Your task to perform on an android device: How much does a 3 bedroom apartment rent for in Atlanta? Image 0: 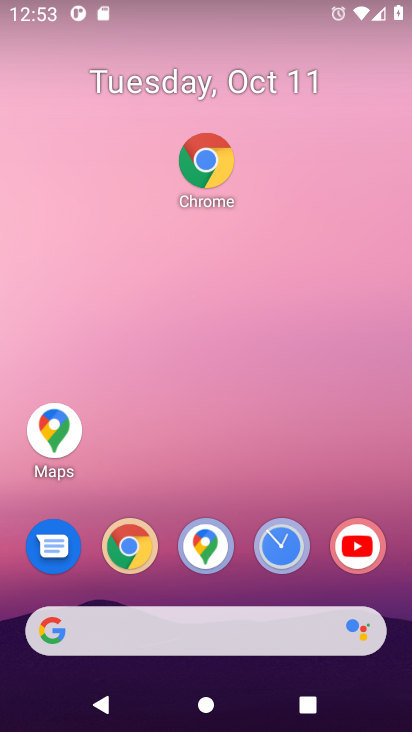
Step 0: click (129, 555)
Your task to perform on an android device: How much does a 3 bedroom apartment rent for in Atlanta? Image 1: 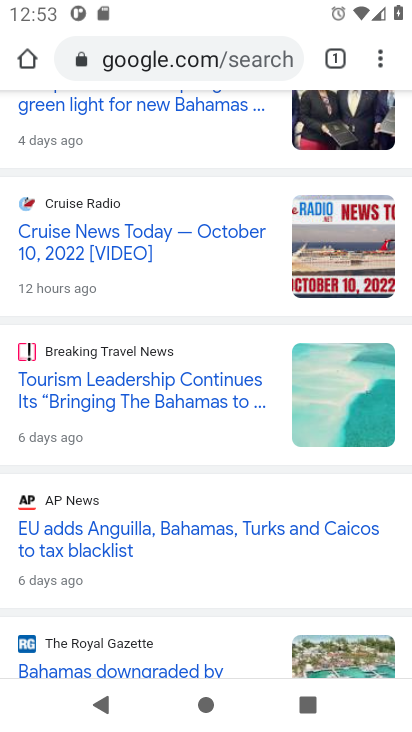
Step 1: click (191, 68)
Your task to perform on an android device: How much does a 3 bedroom apartment rent for in Atlanta? Image 2: 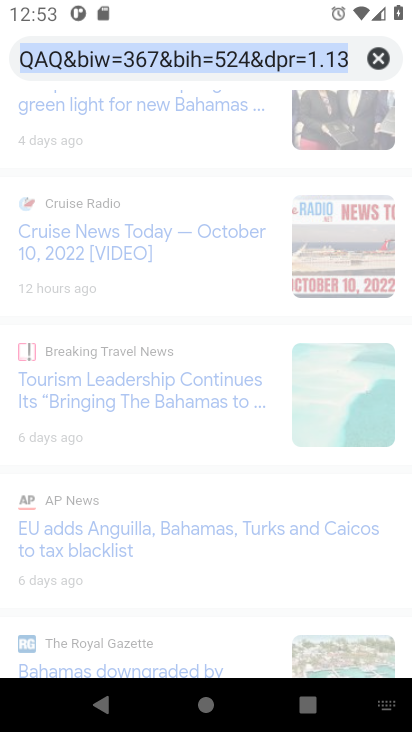
Step 2: type "3 bedroom apartment rent in Atlanta"
Your task to perform on an android device: How much does a 3 bedroom apartment rent for in Atlanta? Image 3: 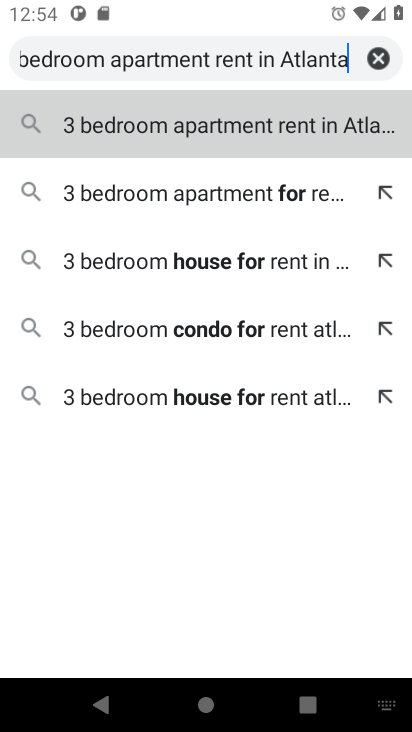
Step 3: press enter
Your task to perform on an android device: How much does a 3 bedroom apartment rent for in Atlanta? Image 4: 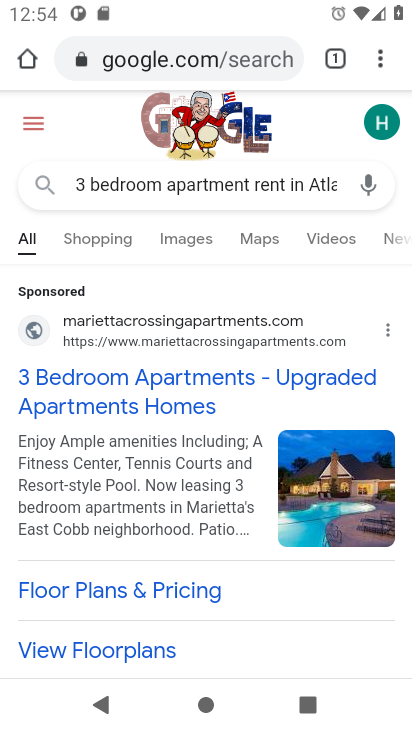
Step 4: drag from (157, 513) to (184, 185)
Your task to perform on an android device: How much does a 3 bedroom apartment rent for in Atlanta? Image 5: 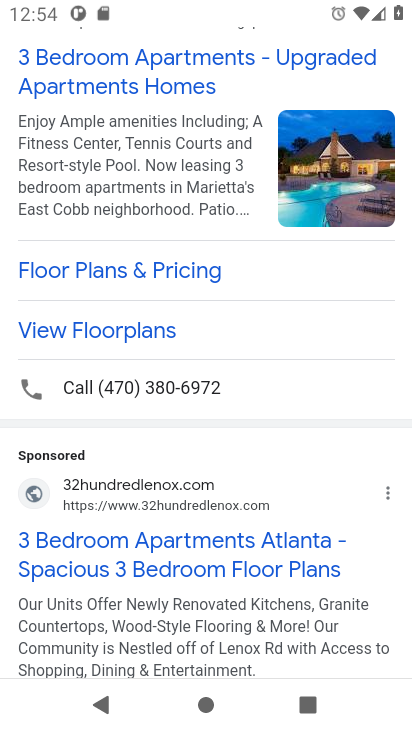
Step 5: drag from (238, 294) to (262, 151)
Your task to perform on an android device: How much does a 3 bedroom apartment rent for in Atlanta? Image 6: 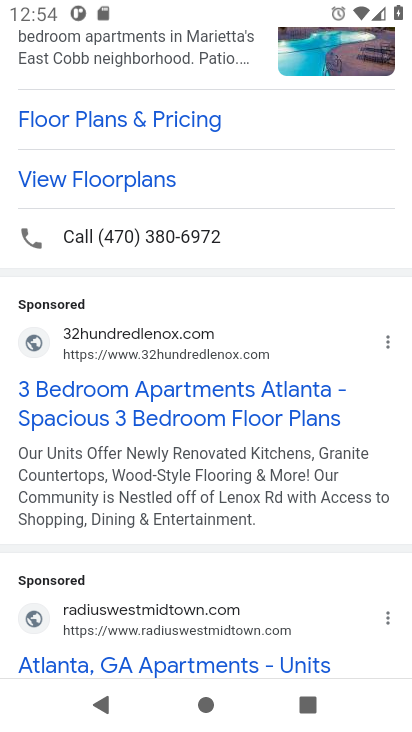
Step 6: drag from (230, 582) to (210, 215)
Your task to perform on an android device: How much does a 3 bedroom apartment rent for in Atlanta? Image 7: 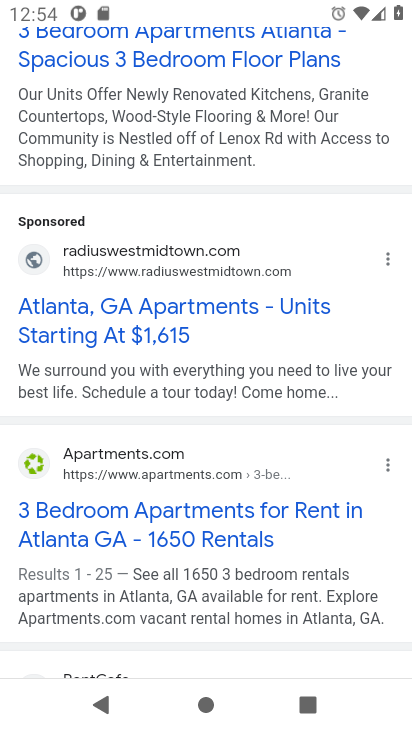
Step 7: click (178, 535)
Your task to perform on an android device: How much does a 3 bedroom apartment rent for in Atlanta? Image 8: 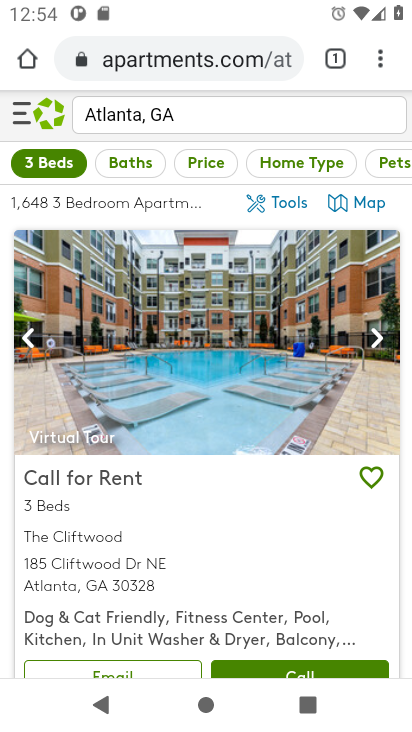
Step 8: task complete